Your task to perform on an android device: open a new tab in the chrome app Image 0: 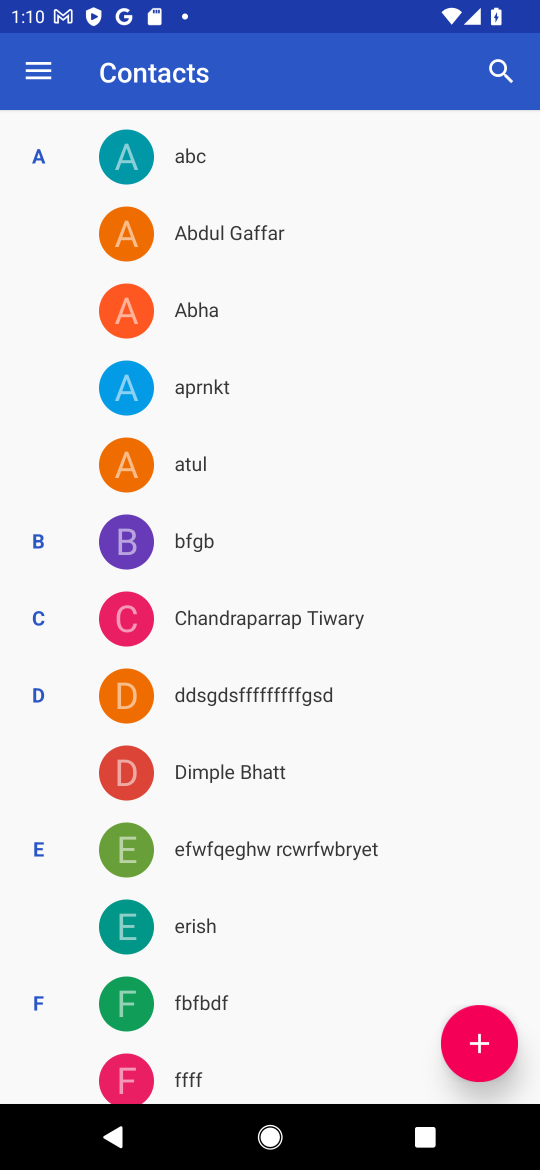
Step 0: task complete